Your task to perform on an android device: What's the news in Thailand? Image 0: 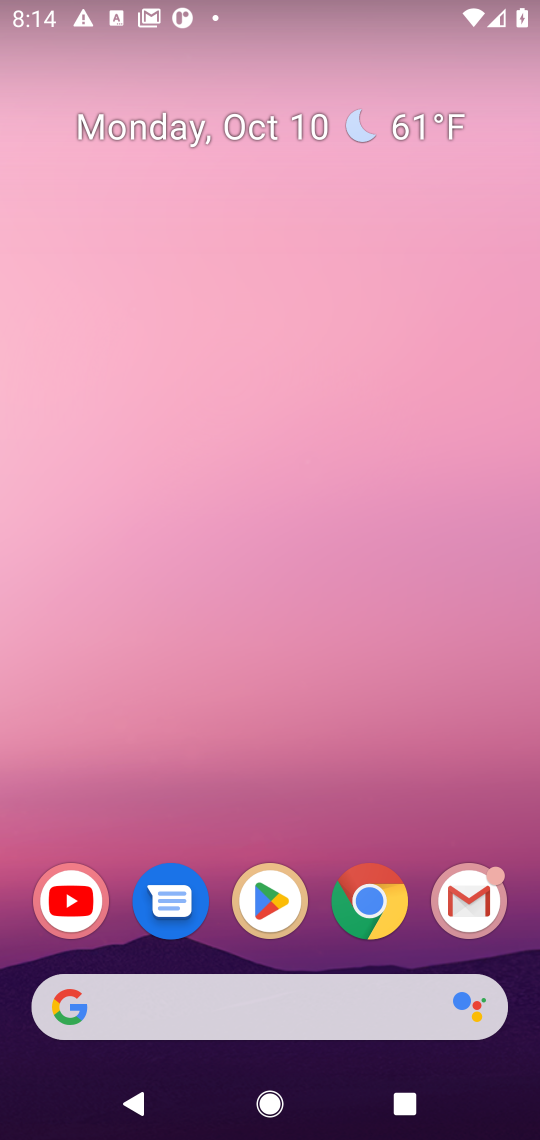
Step 0: click (245, 1001)
Your task to perform on an android device: What's the news in Thailand? Image 1: 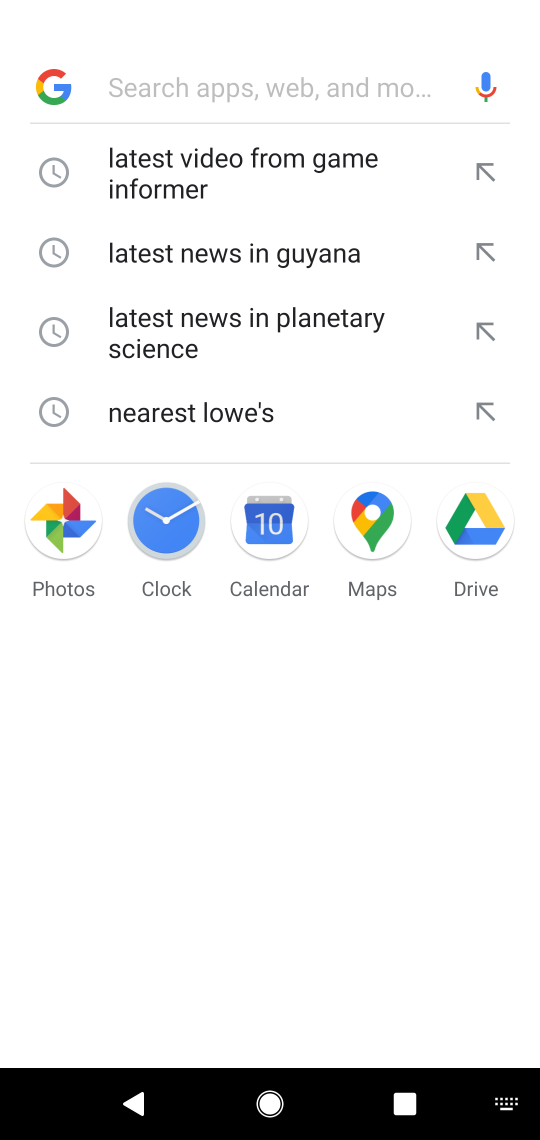
Step 1: type "news in Thailand"
Your task to perform on an android device: What's the news in Thailand? Image 2: 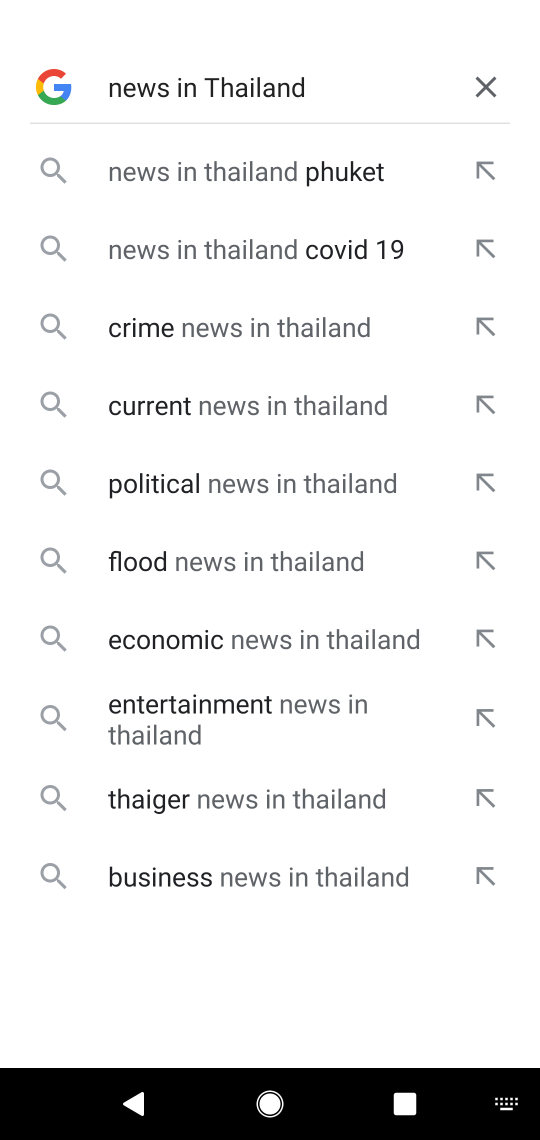
Step 2: press enter
Your task to perform on an android device: What's the news in Thailand? Image 3: 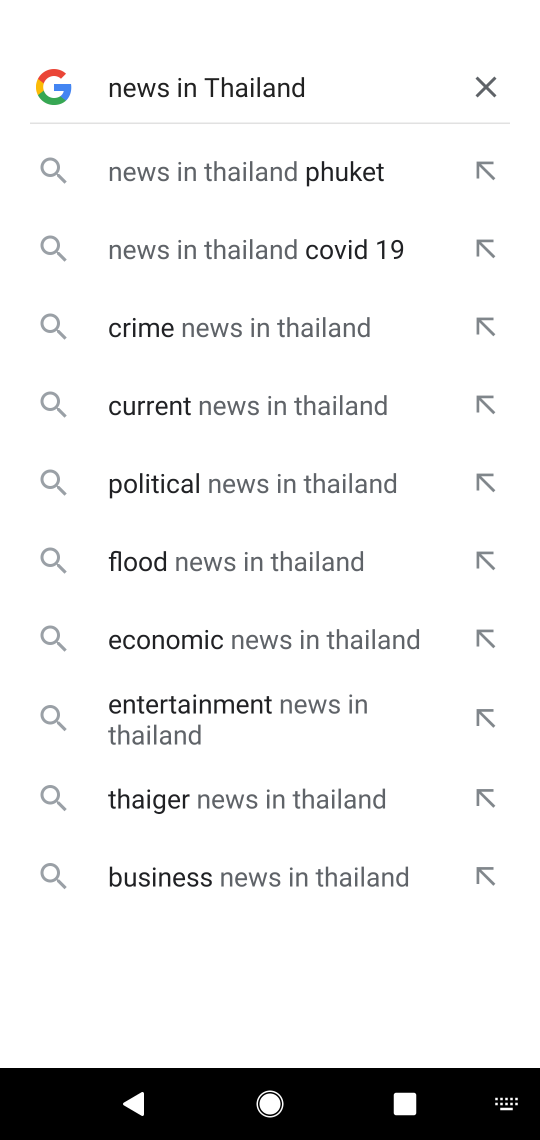
Step 3: type ""
Your task to perform on an android device: What's the news in Thailand? Image 4: 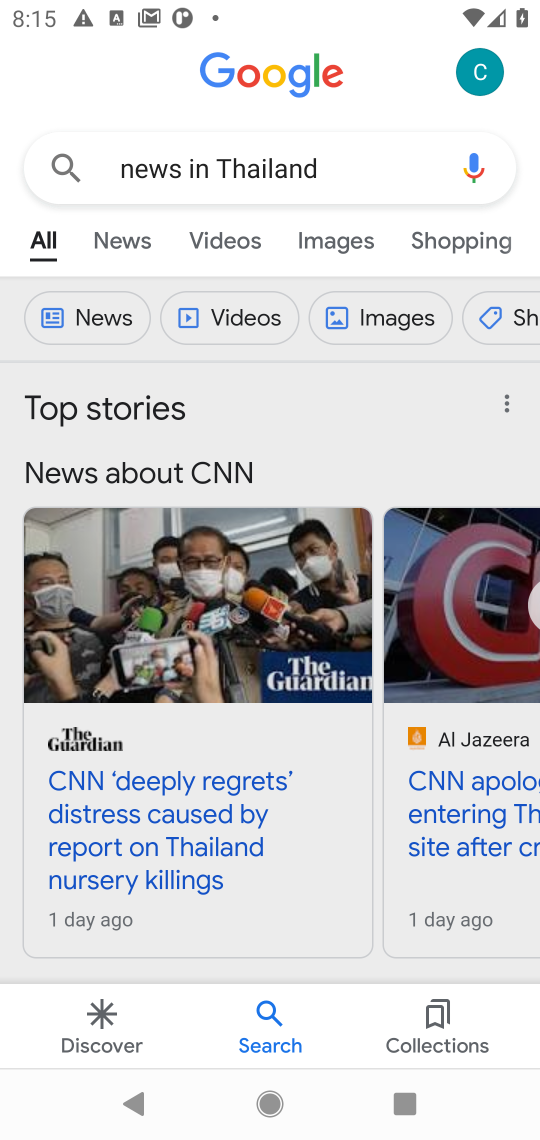
Step 4: drag from (343, 951) to (310, 441)
Your task to perform on an android device: What's the news in Thailand? Image 5: 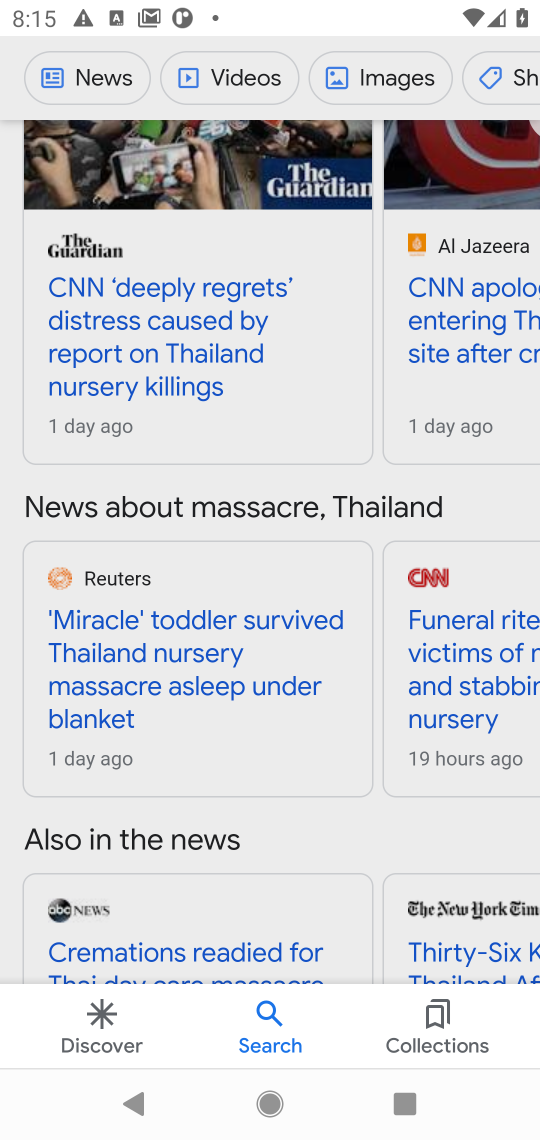
Step 5: drag from (326, 835) to (332, 286)
Your task to perform on an android device: What's the news in Thailand? Image 6: 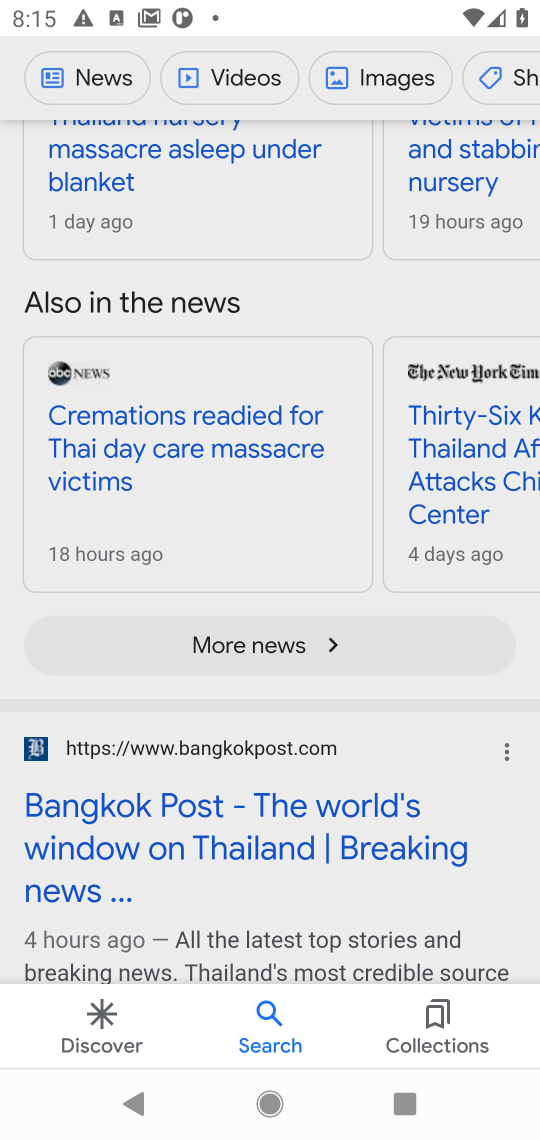
Step 6: click (69, 817)
Your task to perform on an android device: What's the news in Thailand? Image 7: 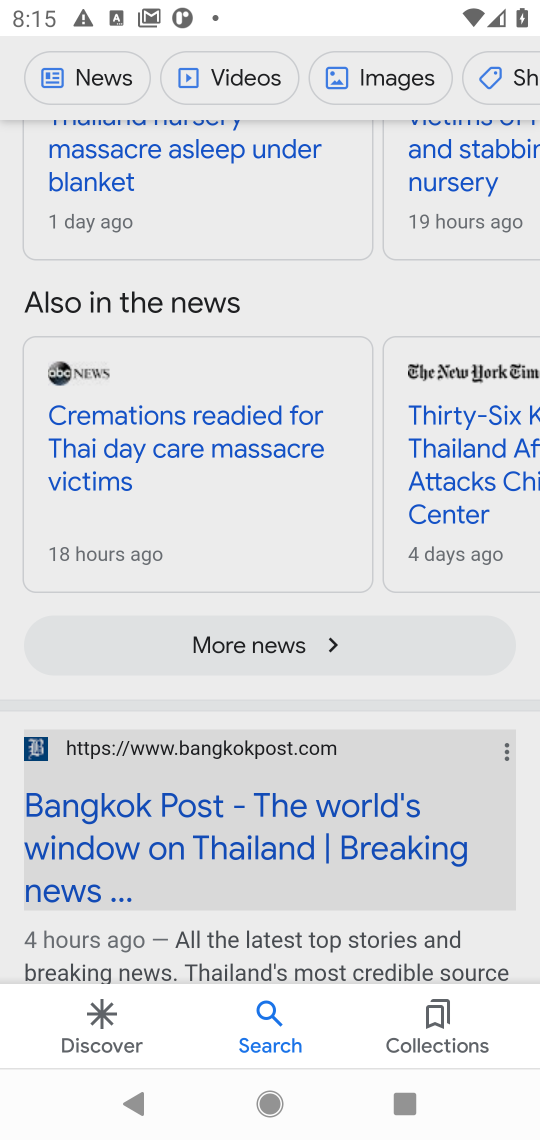
Step 7: click (69, 817)
Your task to perform on an android device: What's the news in Thailand? Image 8: 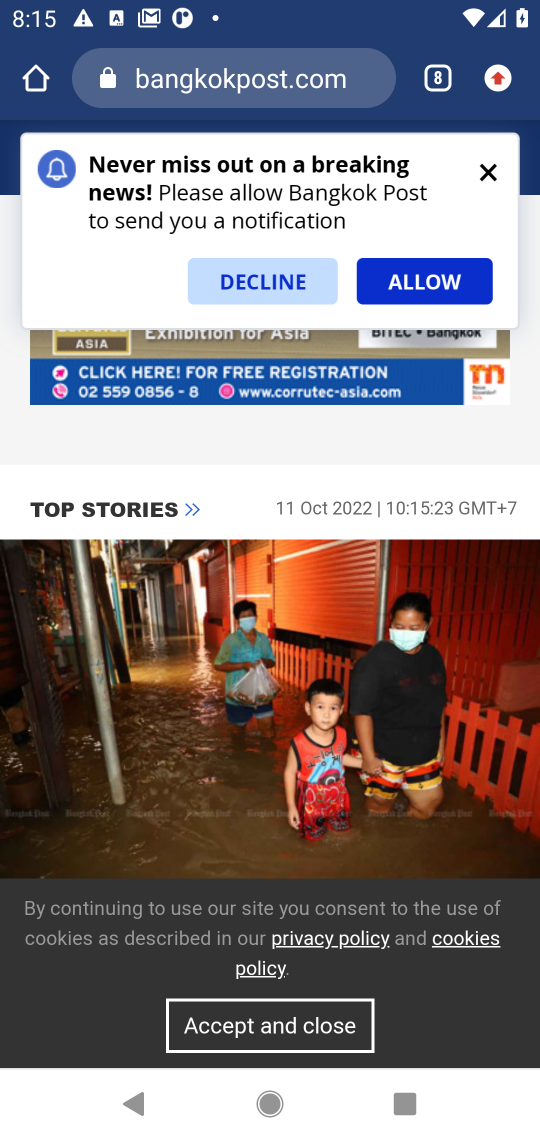
Step 8: click (276, 285)
Your task to perform on an android device: What's the news in Thailand? Image 9: 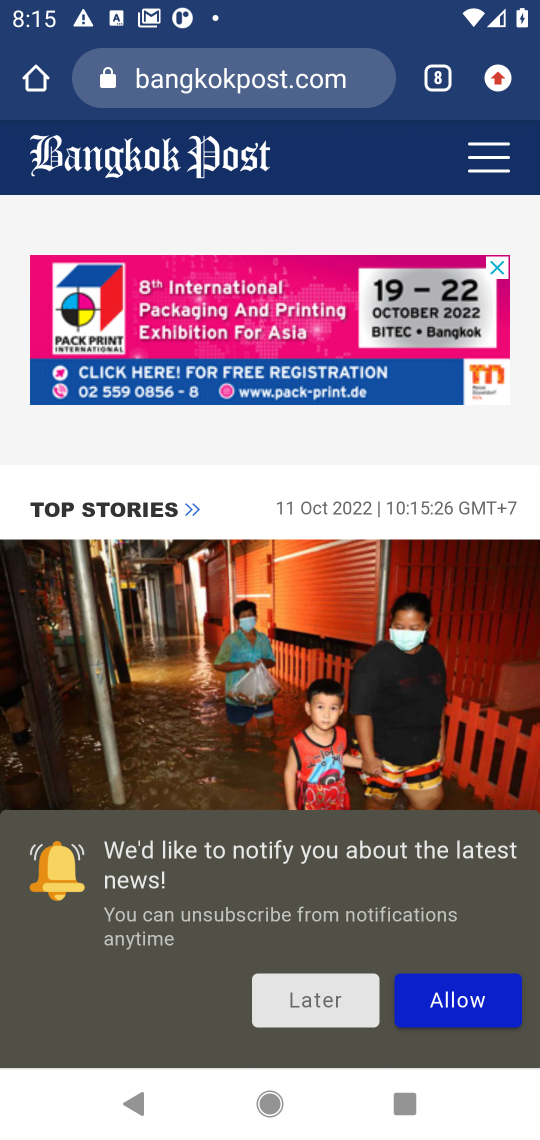
Step 9: click (338, 987)
Your task to perform on an android device: What's the news in Thailand? Image 10: 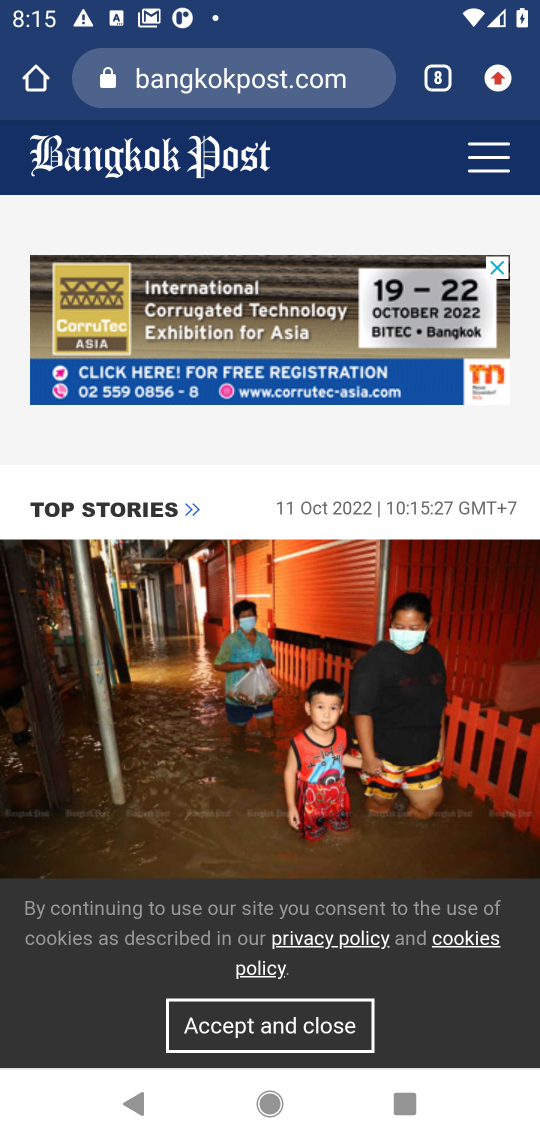
Step 10: drag from (231, 489) to (227, 277)
Your task to perform on an android device: What's the news in Thailand? Image 11: 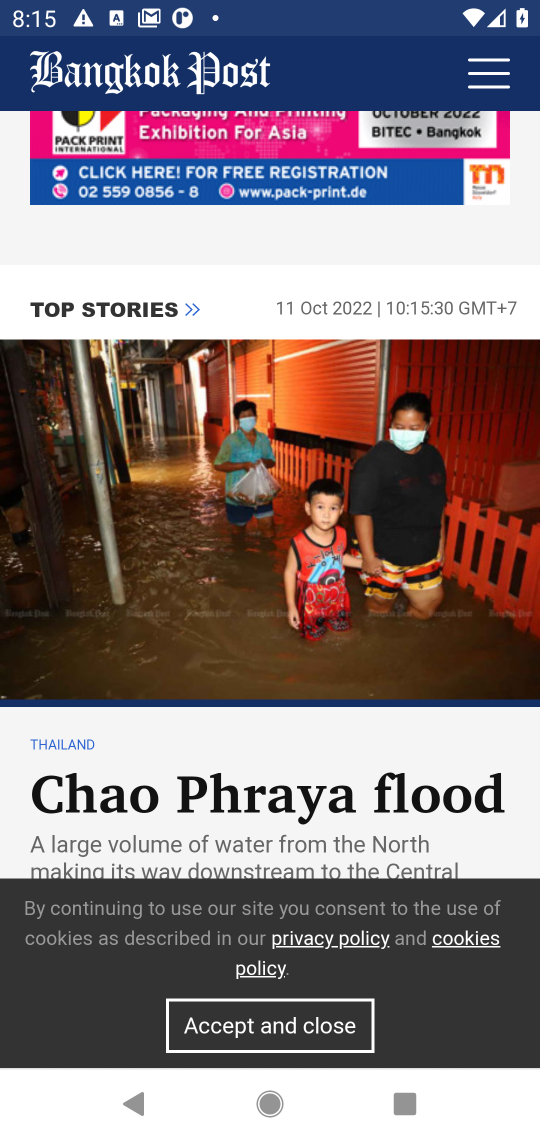
Step 11: drag from (242, 600) to (247, 142)
Your task to perform on an android device: What's the news in Thailand? Image 12: 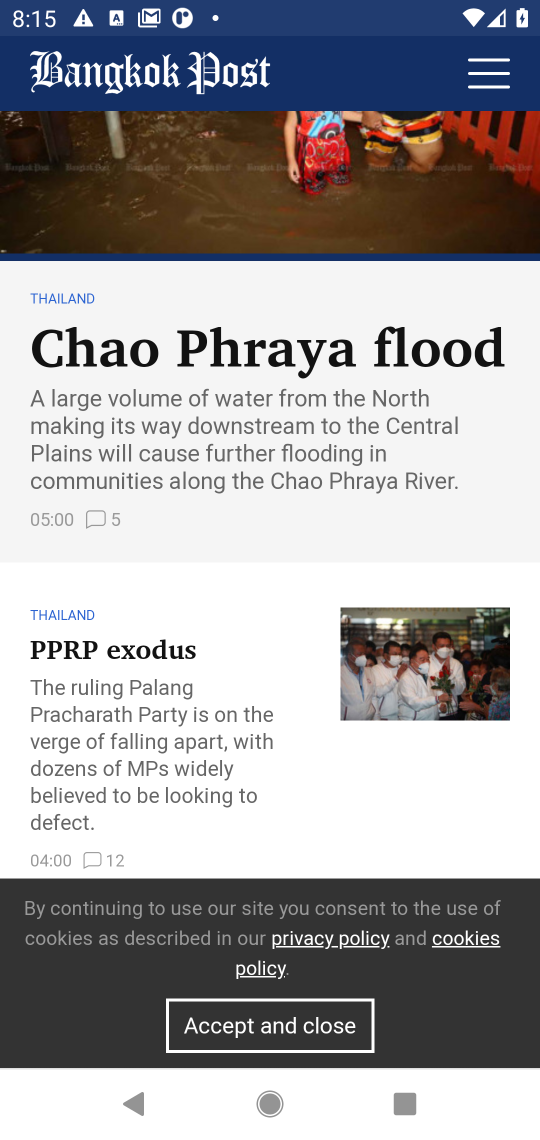
Step 12: drag from (261, 504) to (261, 422)
Your task to perform on an android device: What's the news in Thailand? Image 13: 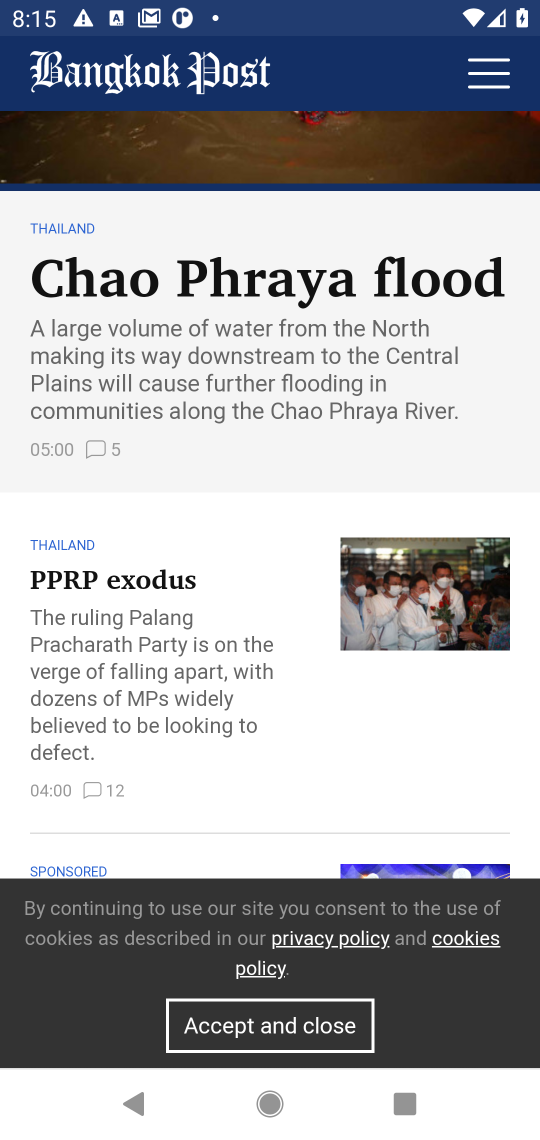
Step 13: drag from (258, 602) to (251, 209)
Your task to perform on an android device: What's the news in Thailand? Image 14: 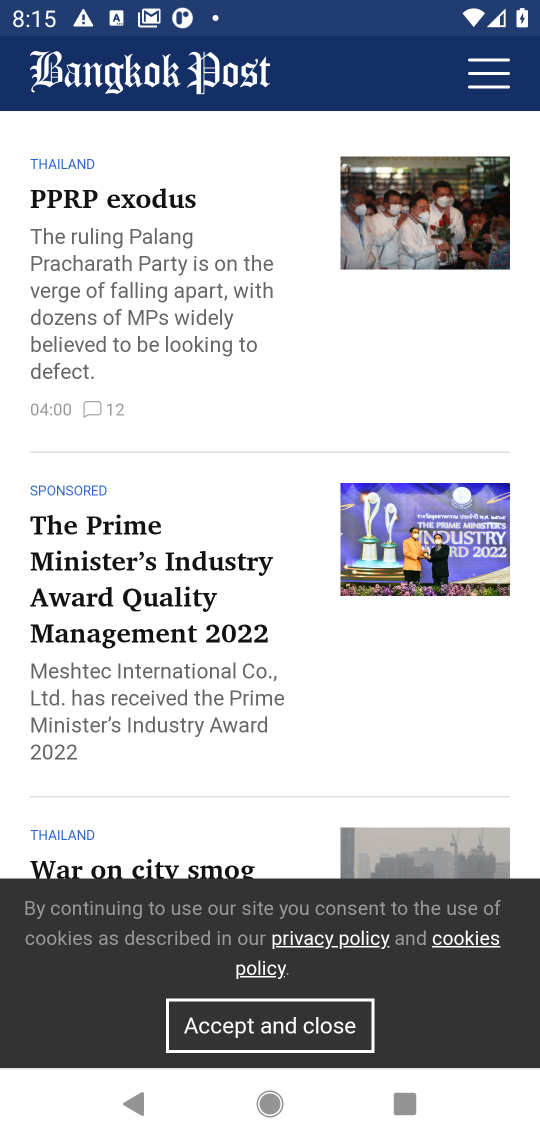
Step 14: drag from (243, 408) to (253, 221)
Your task to perform on an android device: What's the news in Thailand? Image 15: 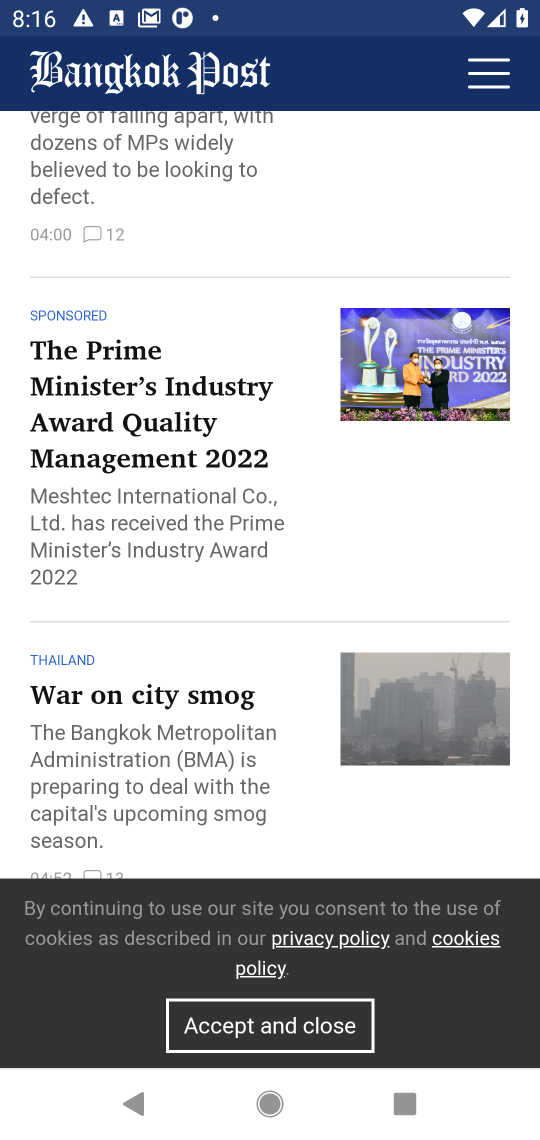
Step 15: drag from (312, 544) to (288, 268)
Your task to perform on an android device: What's the news in Thailand? Image 16: 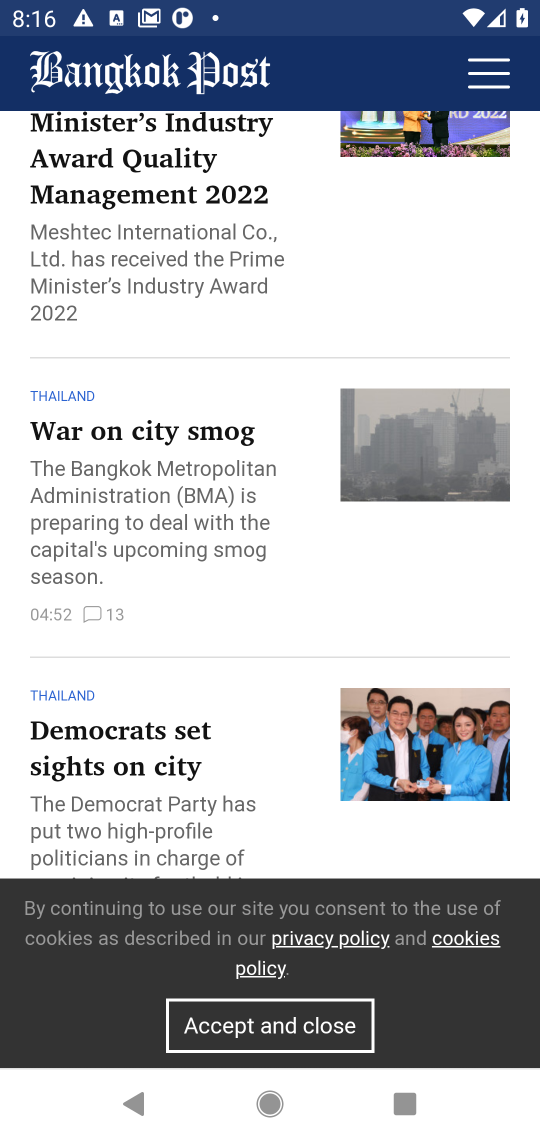
Step 16: click (275, 513)
Your task to perform on an android device: What's the news in Thailand? Image 17: 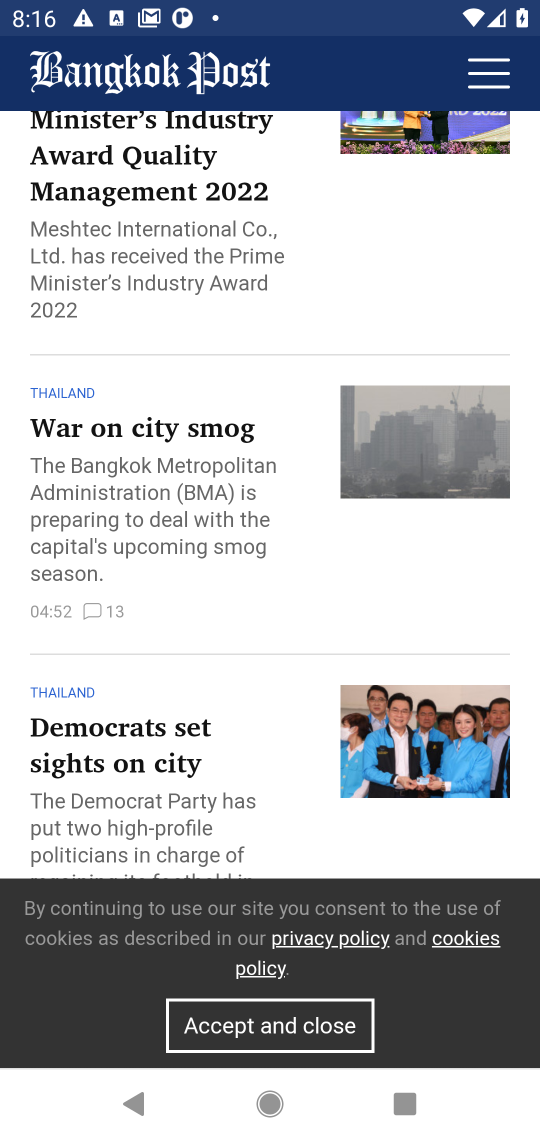
Step 17: task complete